Your task to perform on an android device: turn pop-ups off in chrome Image 0: 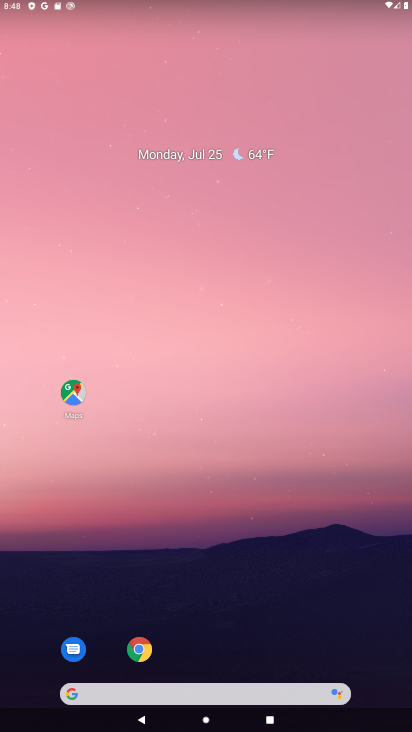
Step 0: click (137, 639)
Your task to perform on an android device: turn pop-ups off in chrome Image 1: 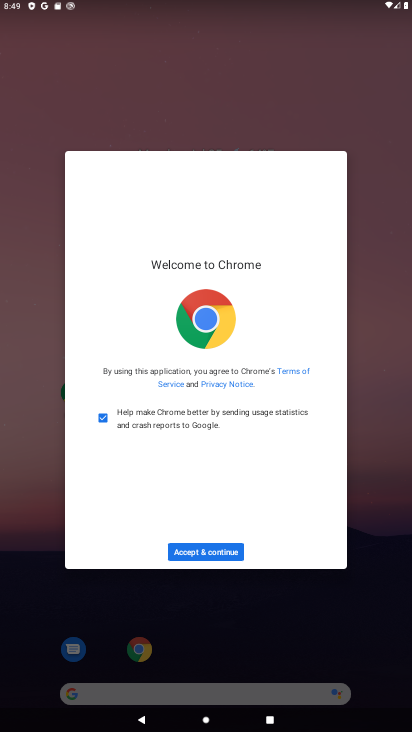
Step 1: click (200, 550)
Your task to perform on an android device: turn pop-ups off in chrome Image 2: 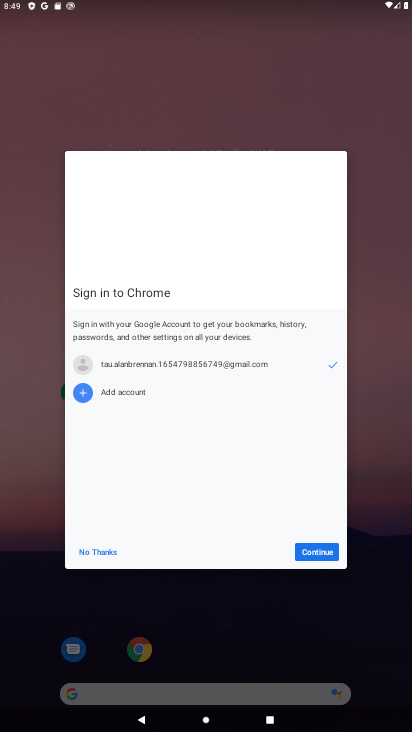
Step 2: click (312, 548)
Your task to perform on an android device: turn pop-ups off in chrome Image 3: 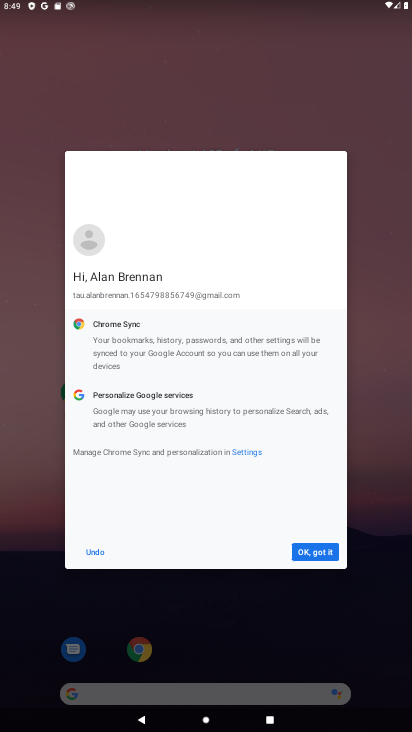
Step 3: click (324, 550)
Your task to perform on an android device: turn pop-ups off in chrome Image 4: 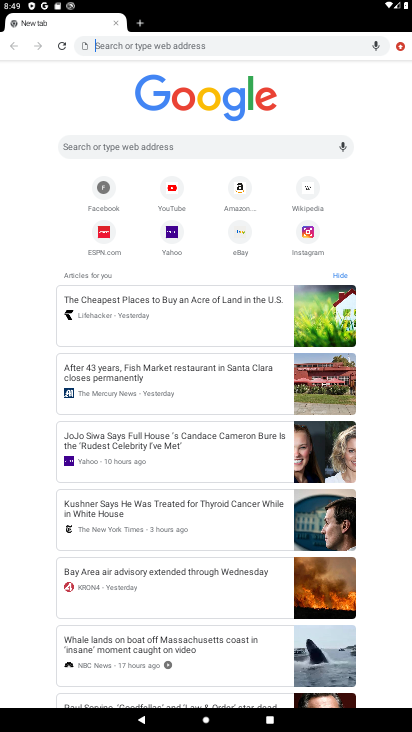
Step 4: click (398, 47)
Your task to perform on an android device: turn pop-ups off in chrome Image 5: 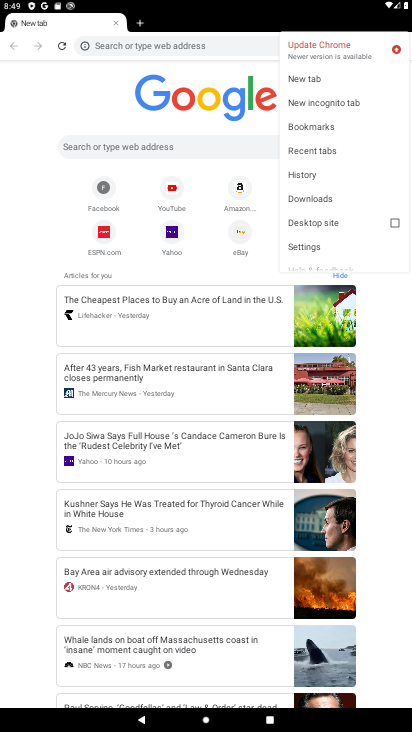
Step 5: click (330, 250)
Your task to perform on an android device: turn pop-ups off in chrome Image 6: 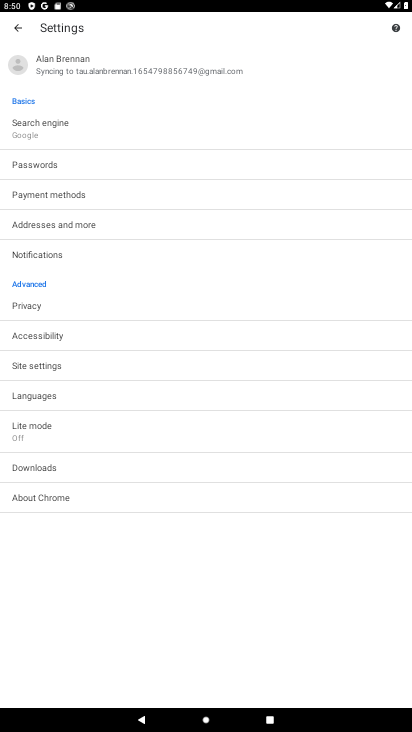
Step 6: click (115, 369)
Your task to perform on an android device: turn pop-ups off in chrome Image 7: 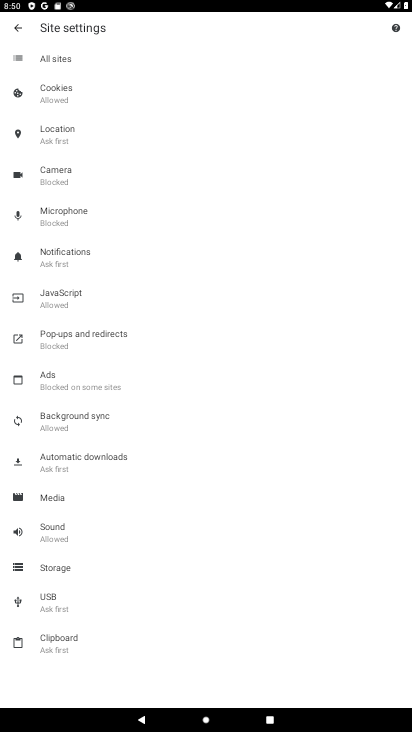
Step 7: click (93, 336)
Your task to perform on an android device: turn pop-ups off in chrome Image 8: 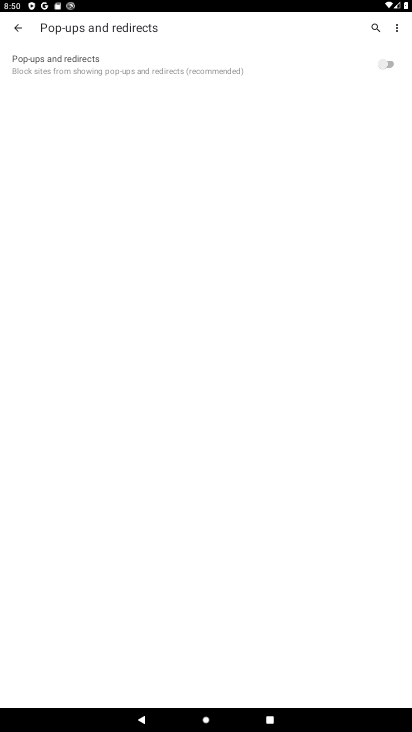
Step 8: task complete